Your task to perform on an android device: turn off sleep mode Image 0: 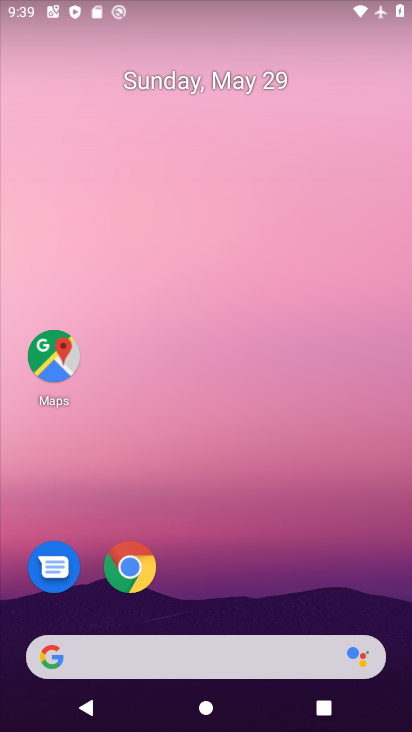
Step 0: drag from (392, 610) to (306, 35)
Your task to perform on an android device: turn off sleep mode Image 1: 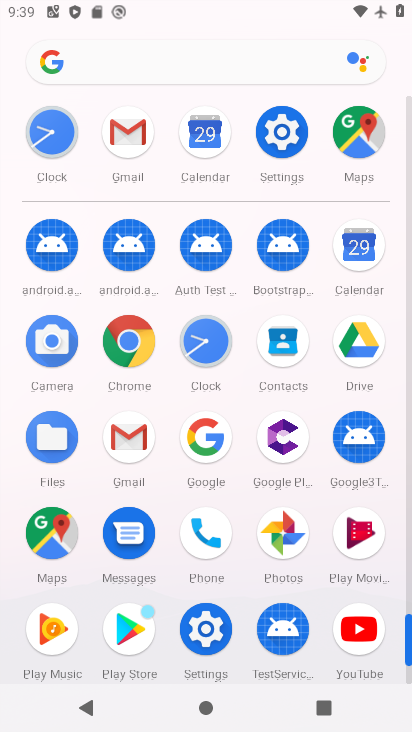
Step 1: click (205, 630)
Your task to perform on an android device: turn off sleep mode Image 2: 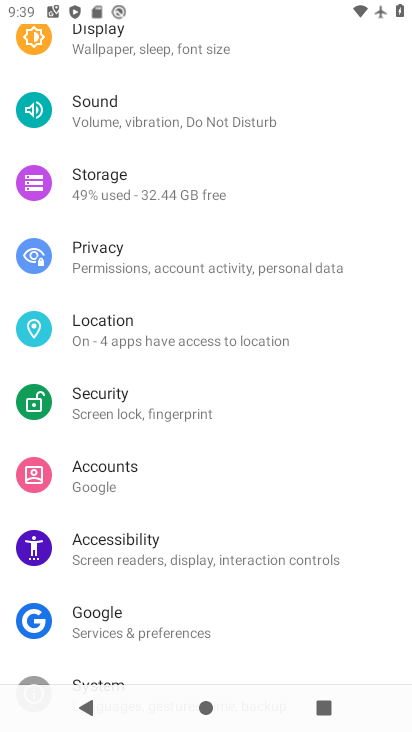
Step 2: drag from (258, 113) to (230, 379)
Your task to perform on an android device: turn off sleep mode Image 3: 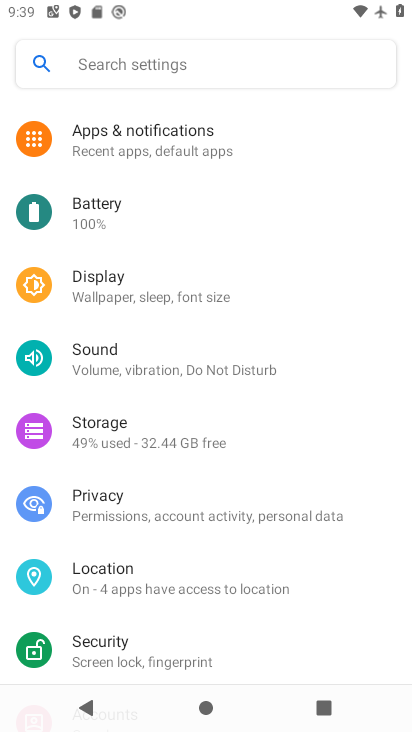
Step 3: click (94, 279)
Your task to perform on an android device: turn off sleep mode Image 4: 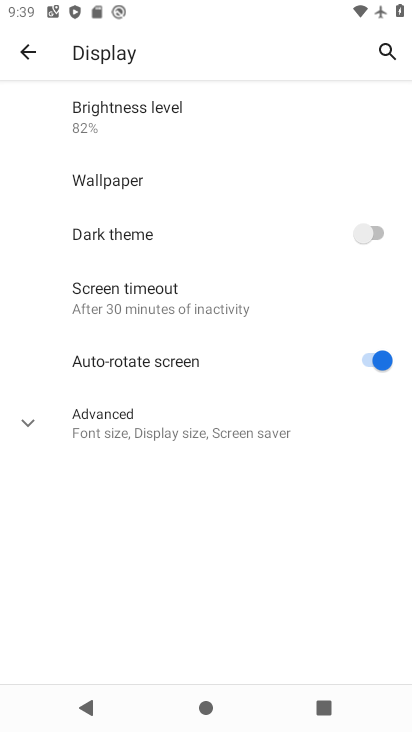
Step 4: click (32, 422)
Your task to perform on an android device: turn off sleep mode Image 5: 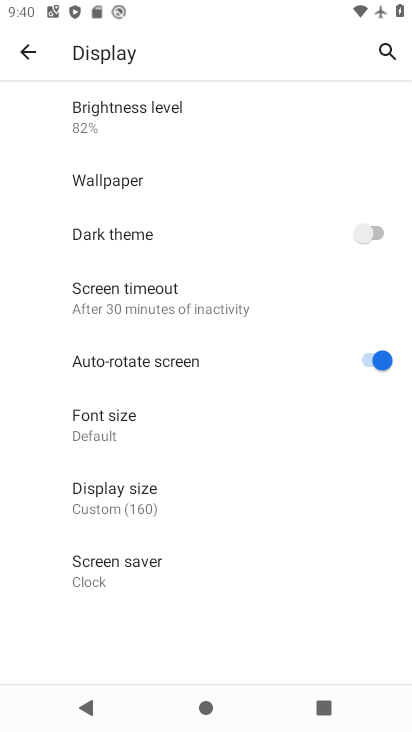
Step 5: task complete